Your task to perform on an android device: refresh tabs in the chrome app Image 0: 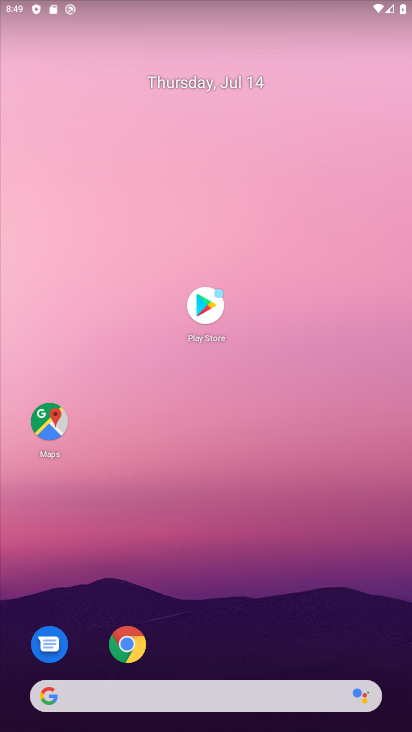
Step 0: drag from (224, 451) to (241, 163)
Your task to perform on an android device: refresh tabs in the chrome app Image 1: 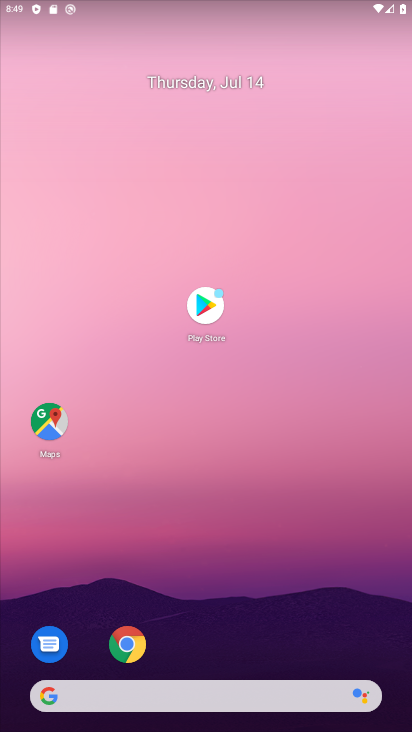
Step 1: drag from (184, 623) to (245, 129)
Your task to perform on an android device: refresh tabs in the chrome app Image 2: 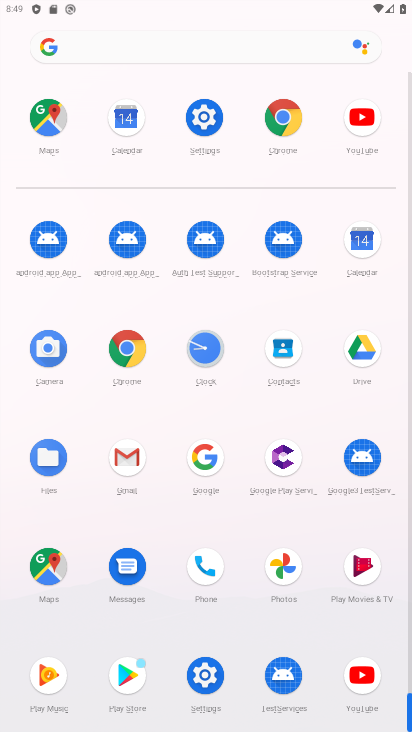
Step 2: click (129, 343)
Your task to perform on an android device: refresh tabs in the chrome app Image 3: 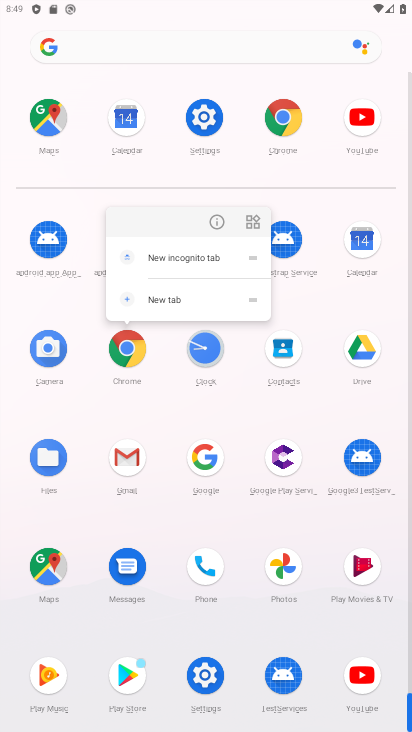
Step 3: click (216, 220)
Your task to perform on an android device: refresh tabs in the chrome app Image 4: 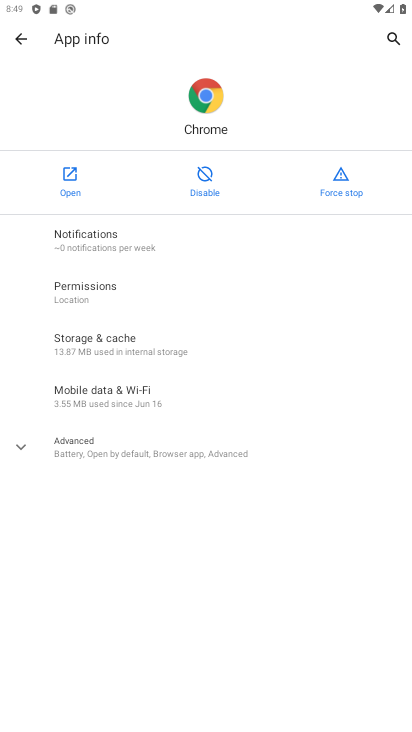
Step 4: click (76, 184)
Your task to perform on an android device: refresh tabs in the chrome app Image 5: 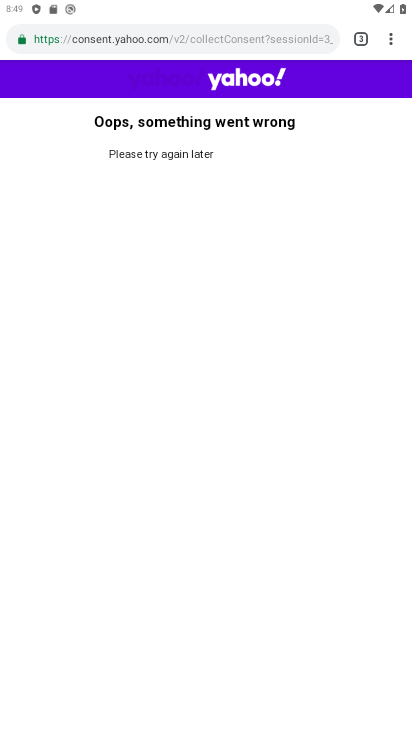
Step 5: drag from (203, 619) to (212, 193)
Your task to perform on an android device: refresh tabs in the chrome app Image 6: 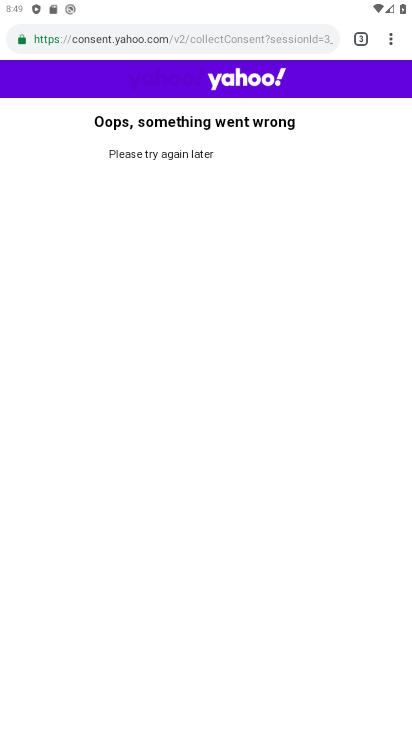
Step 6: drag from (197, 552) to (200, 292)
Your task to perform on an android device: refresh tabs in the chrome app Image 7: 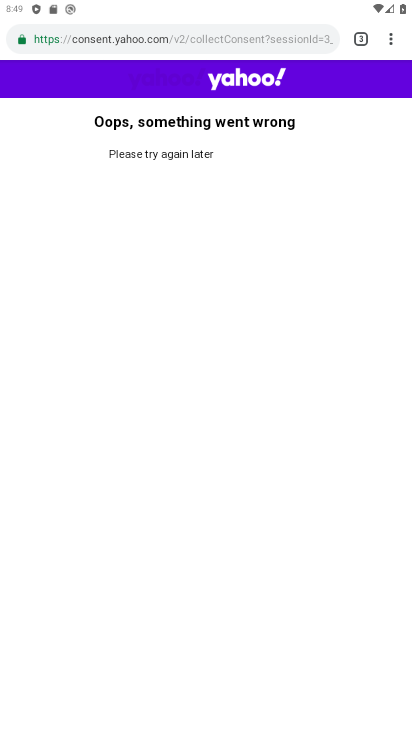
Step 7: click (396, 38)
Your task to perform on an android device: refresh tabs in the chrome app Image 8: 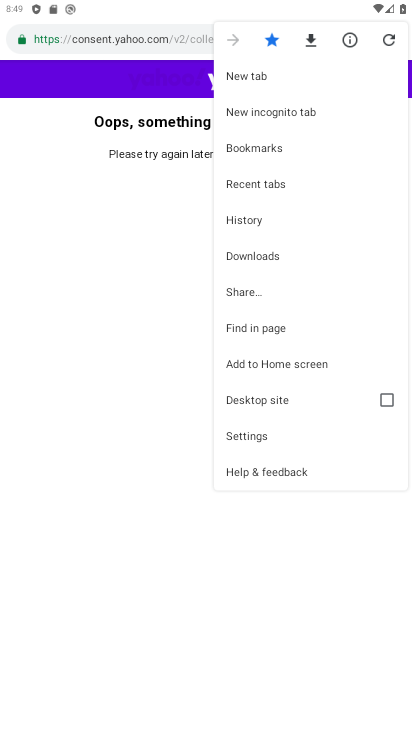
Step 8: click (395, 37)
Your task to perform on an android device: refresh tabs in the chrome app Image 9: 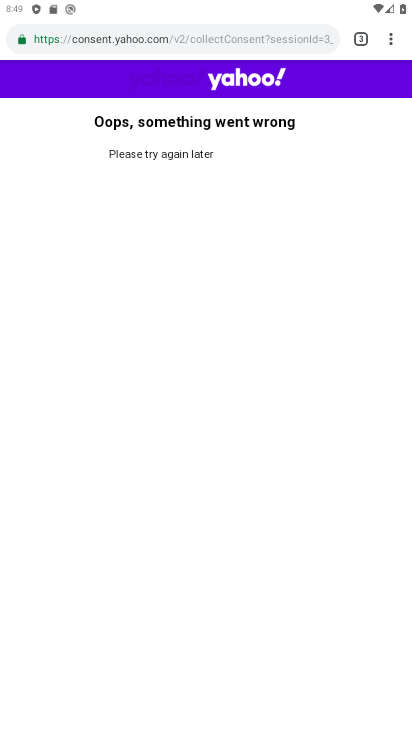
Step 9: task complete